Your task to perform on an android device: Open Google Chrome and click the shortcut for Amazon.com Image 0: 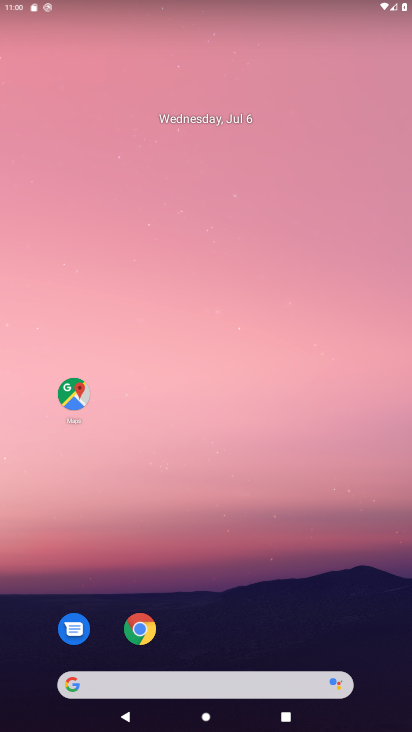
Step 0: drag from (223, 647) to (256, 22)
Your task to perform on an android device: Open Google Chrome and click the shortcut for Amazon.com Image 1: 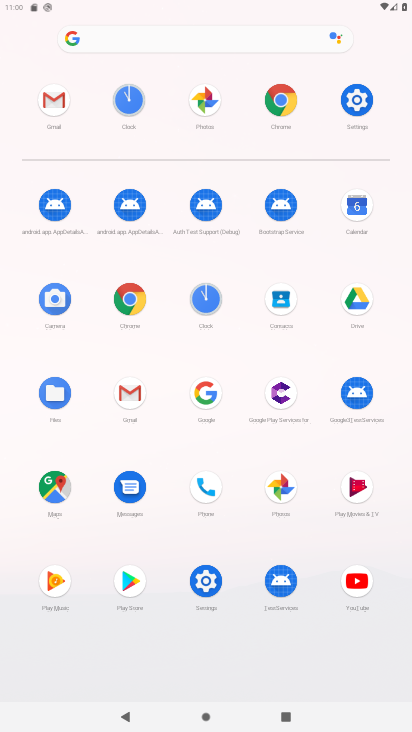
Step 1: click (130, 299)
Your task to perform on an android device: Open Google Chrome and click the shortcut for Amazon.com Image 2: 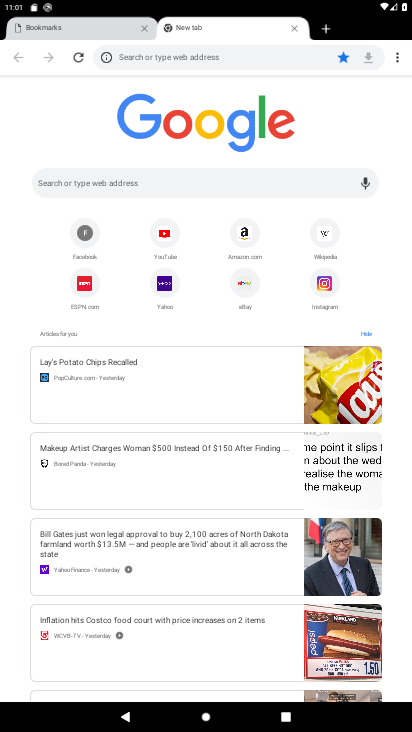
Step 2: click (242, 234)
Your task to perform on an android device: Open Google Chrome and click the shortcut for Amazon.com Image 3: 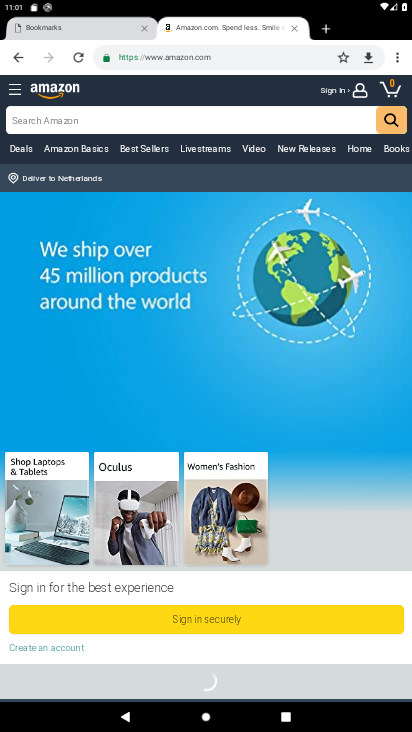
Step 3: task complete